Your task to perform on an android device: turn smart compose on in the gmail app Image 0: 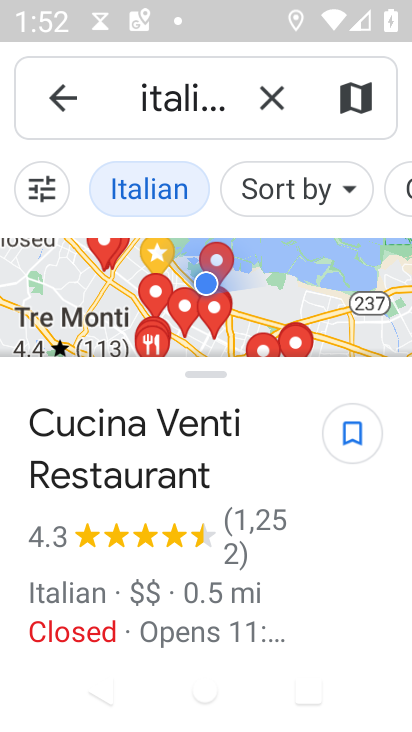
Step 0: press home button
Your task to perform on an android device: turn smart compose on in the gmail app Image 1: 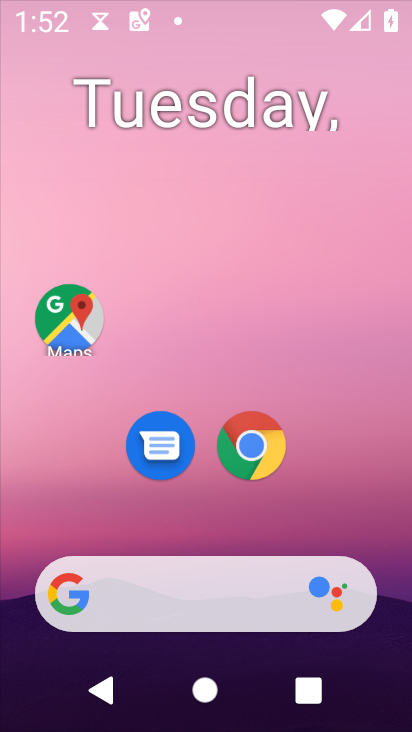
Step 1: drag from (357, 611) to (14, 326)
Your task to perform on an android device: turn smart compose on in the gmail app Image 2: 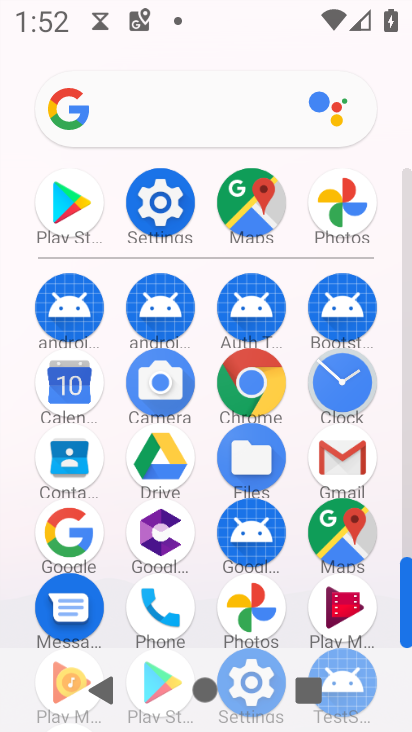
Step 2: click (342, 454)
Your task to perform on an android device: turn smart compose on in the gmail app Image 3: 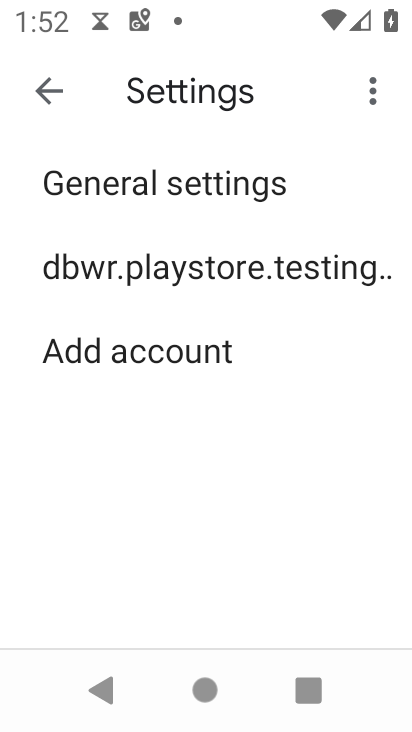
Step 3: press back button
Your task to perform on an android device: turn smart compose on in the gmail app Image 4: 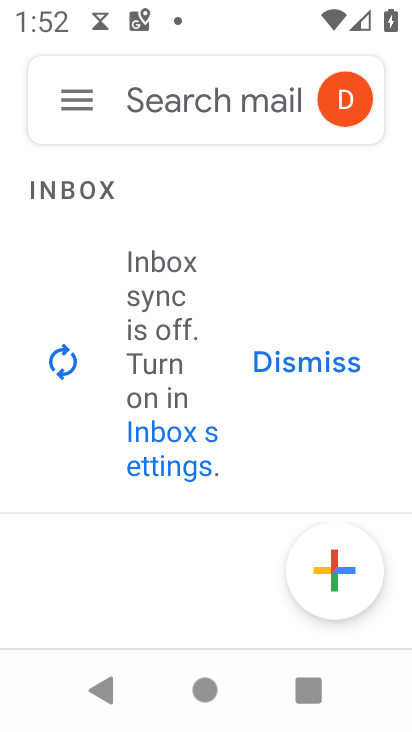
Step 4: click (70, 113)
Your task to perform on an android device: turn smart compose on in the gmail app Image 5: 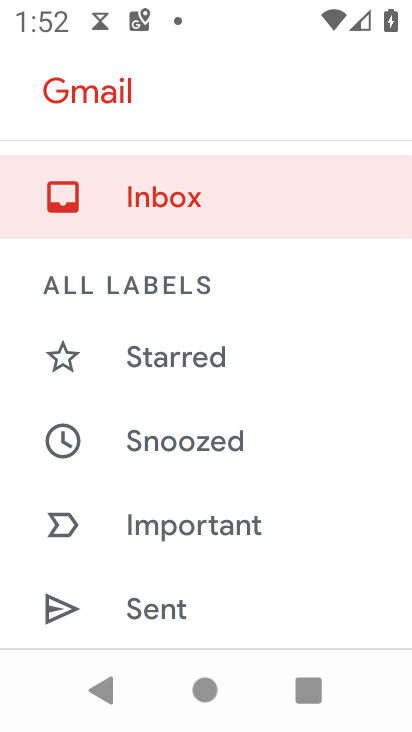
Step 5: drag from (211, 605) to (236, 73)
Your task to perform on an android device: turn smart compose on in the gmail app Image 6: 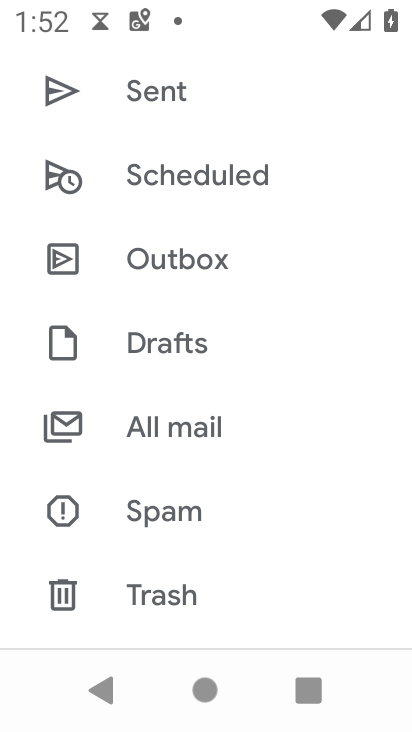
Step 6: drag from (248, 590) to (260, 158)
Your task to perform on an android device: turn smart compose on in the gmail app Image 7: 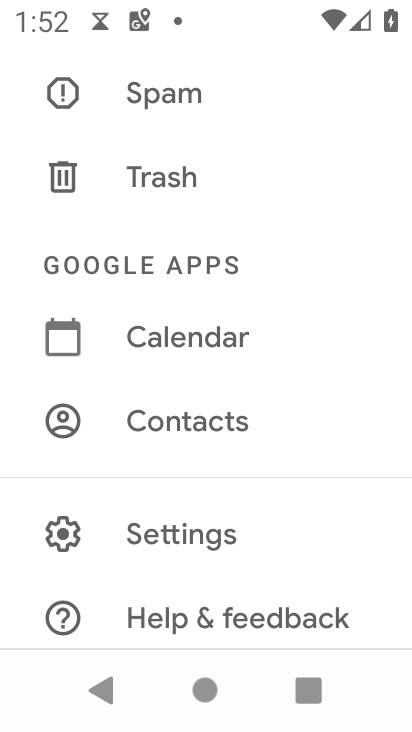
Step 7: click (244, 526)
Your task to perform on an android device: turn smart compose on in the gmail app Image 8: 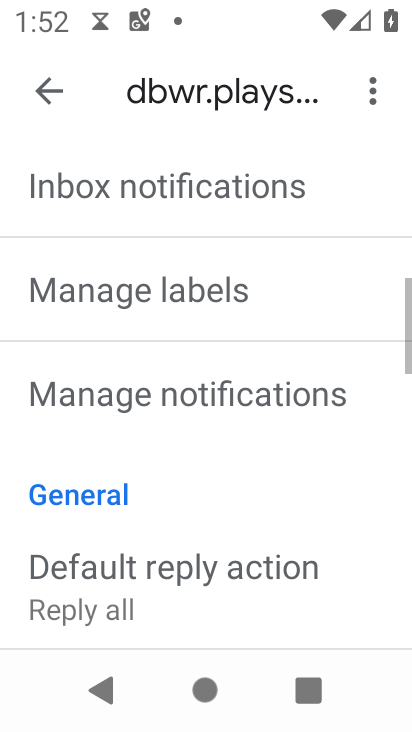
Step 8: task complete